Your task to perform on an android device: check the backup settings in the google photos Image 0: 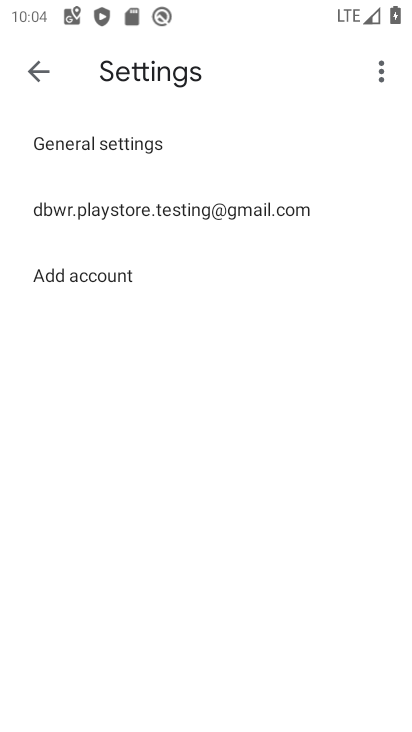
Step 0: click (174, 207)
Your task to perform on an android device: check the backup settings in the google photos Image 1: 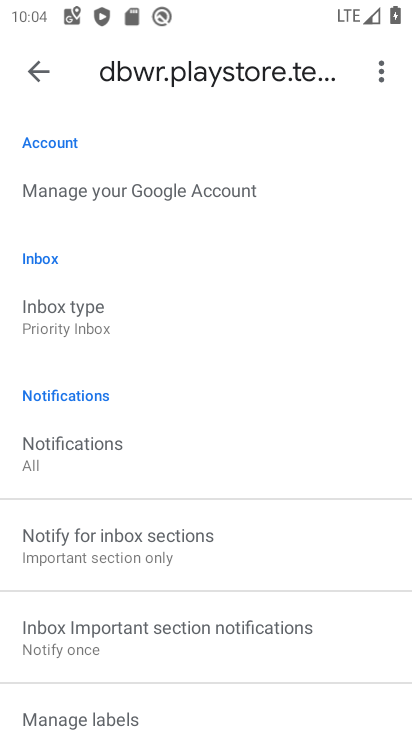
Step 1: press home button
Your task to perform on an android device: check the backup settings in the google photos Image 2: 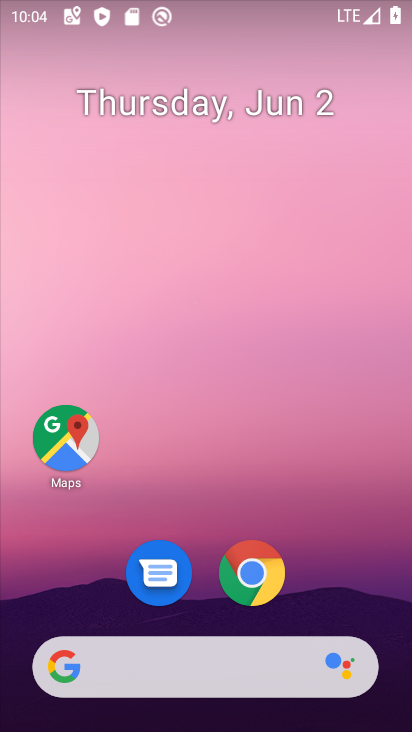
Step 2: drag from (216, 473) to (218, 45)
Your task to perform on an android device: check the backup settings in the google photos Image 3: 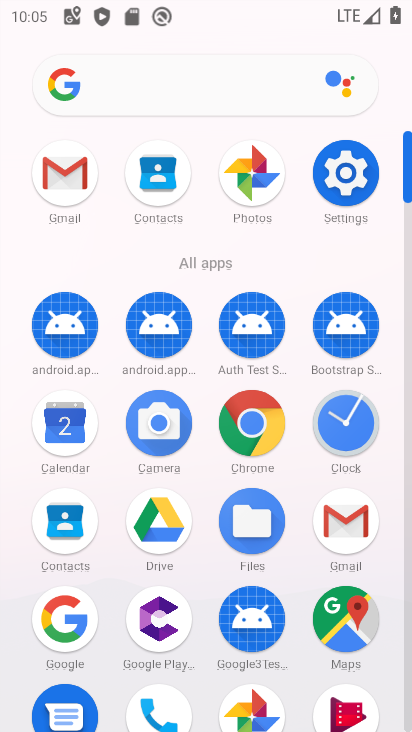
Step 3: click (253, 173)
Your task to perform on an android device: check the backup settings in the google photos Image 4: 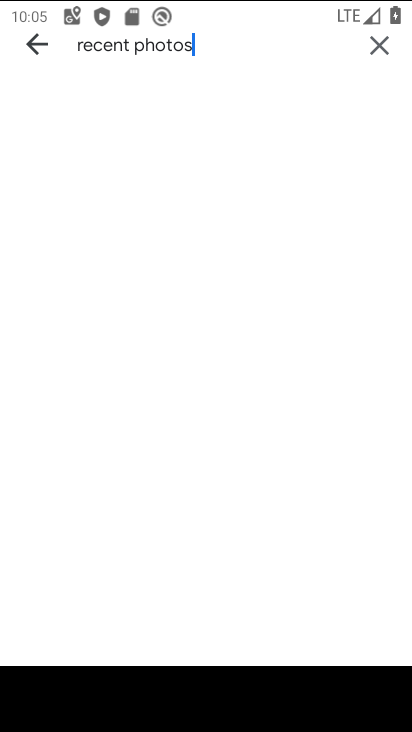
Step 4: click (43, 50)
Your task to perform on an android device: check the backup settings in the google photos Image 5: 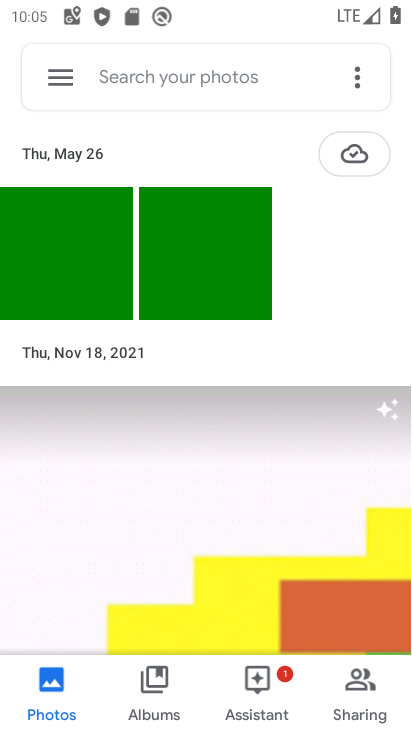
Step 5: click (63, 72)
Your task to perform on an android device: check the backup settings in the google photos Image 6: 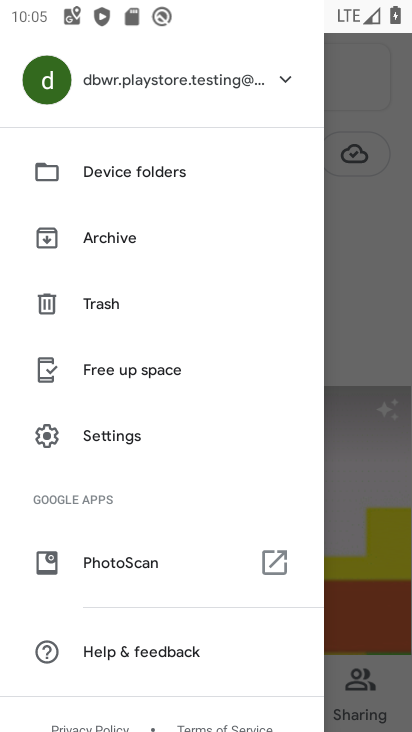
Step 6: click (134, 446)
Your task to perform on an android device: check the backup settings in the google photos Image 7: 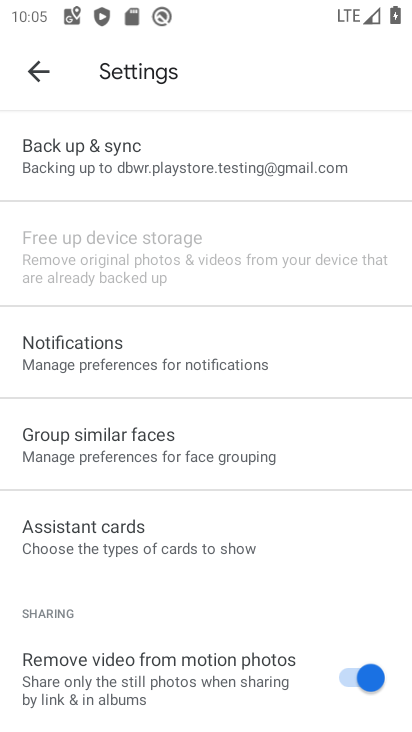
Step 7: click (191, 157)
Your task to perform on an android device: check the backup settings in the google photos Image 8: 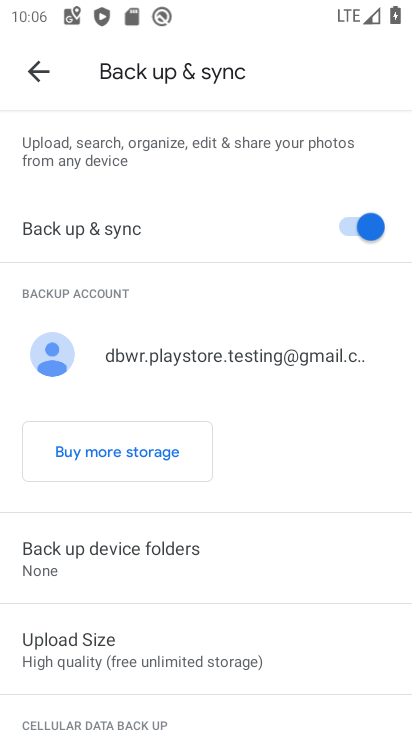
Step 8: task complete